Your task to perform on an android device: What is the news today? Image 0: 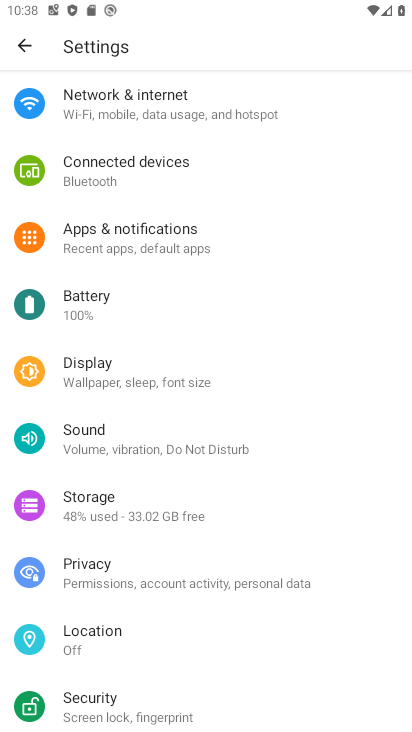
Step 0: press home button
Your task to perform on an android device: What is the news today? Image 1: 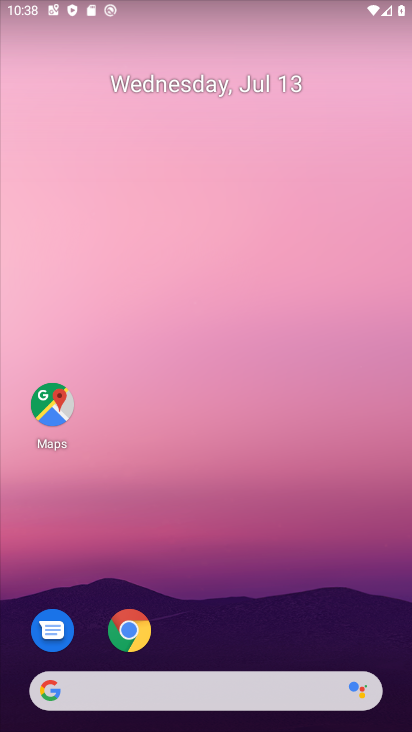
Step 1: drag from (288, 526) to (169, 337)
Your task to perform on an android device: What is the news today? Image 2: 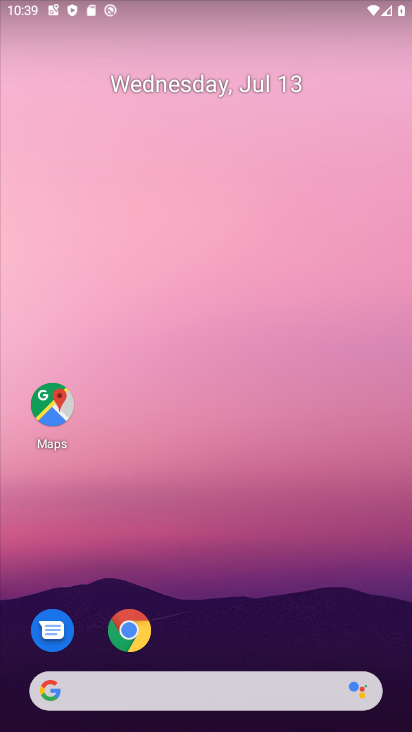
Step 2: drag from (245, 615) to (193, 96)
Your task to perform on an android device: What is the news today? Image 3: 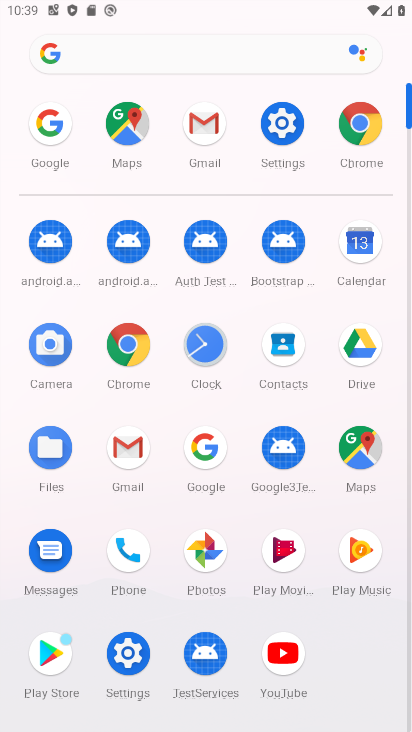
Step 3: click (376, 132)
Your task to perform on an android device: What is the news today? Image 4: 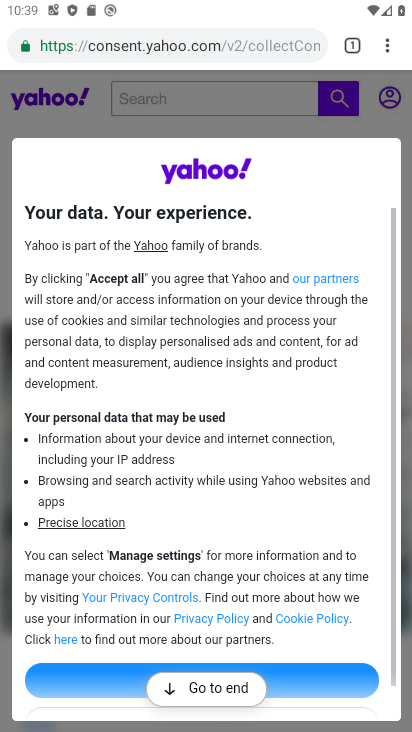
Step 4: click (276, 46)
Your task to perform on an android device: What is the news today? Image 5: 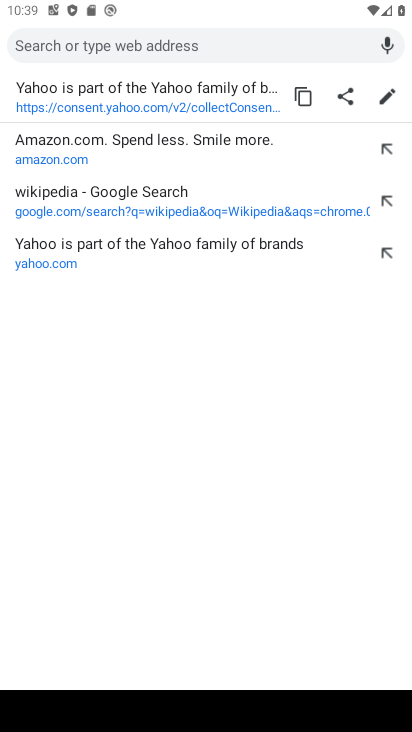
Step 5: task complete